Your task to perform on an android device: turn on location history Image 0: 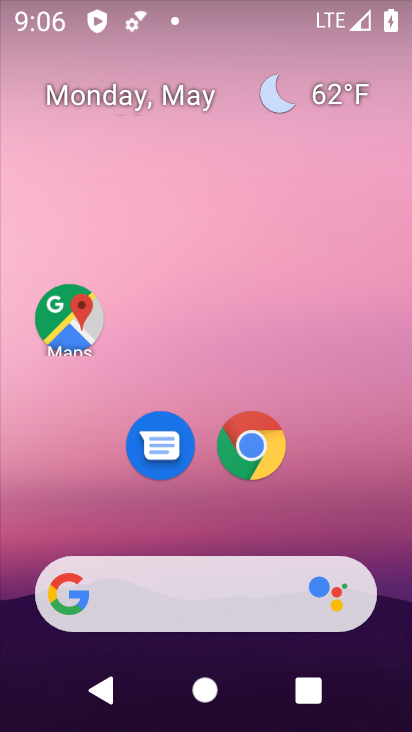
Step 0: drag from (397, 623) to (284, 135)
Your task to perform on an android device: turn on location history Image 1: 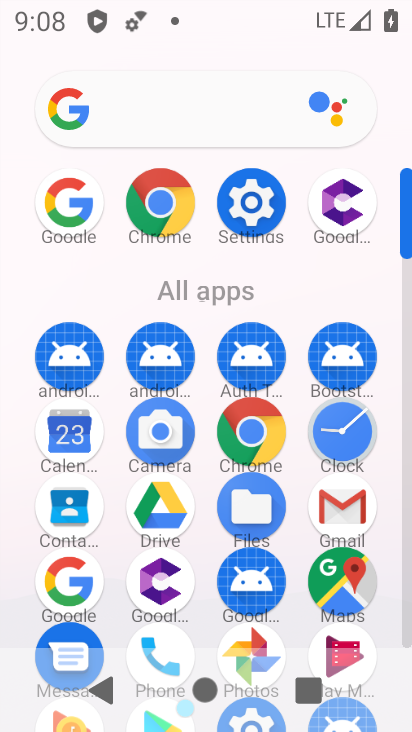
Step 1: click (265, 220)
Your task to perform on an android device: turn on location history Image 2: 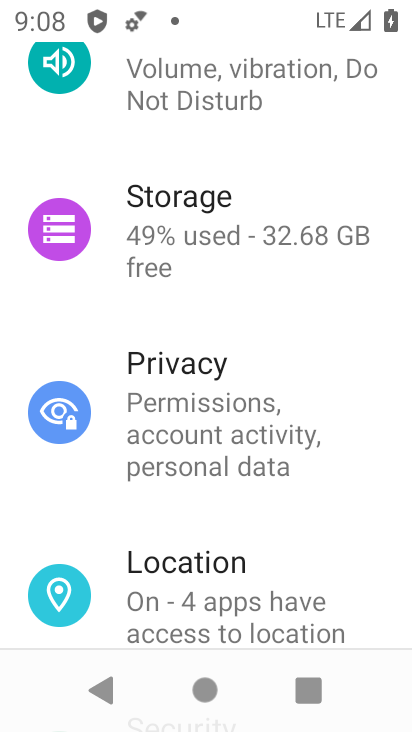
Step 2: click (212, 585)
Your task to perform on an android device: turn on location history Image 3: 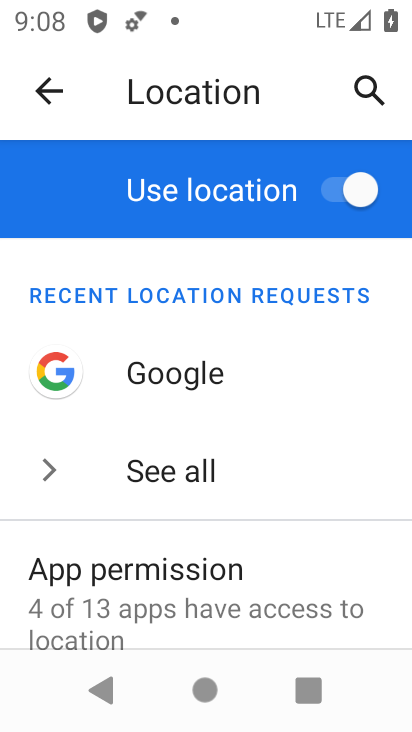
Step 3: drag from (184, 565) to (237, 72)
Your task to perform on an android device: turn on location history Image 4: 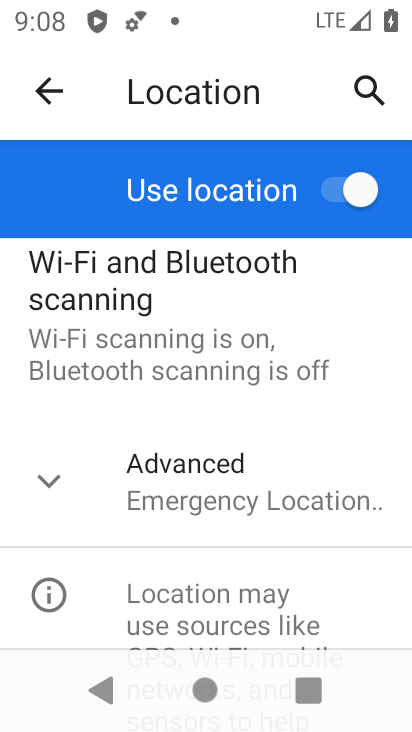
Step 4: click (157, 483)
Your task to perform on an android device: turn on location history Image 5: 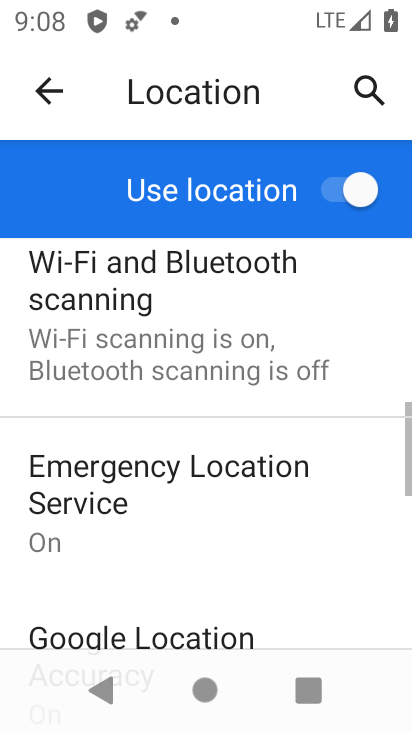
Step 5: drag from (154, 537) to (223, 135)
Your task to perform on an android device: turn on location history Image 6: 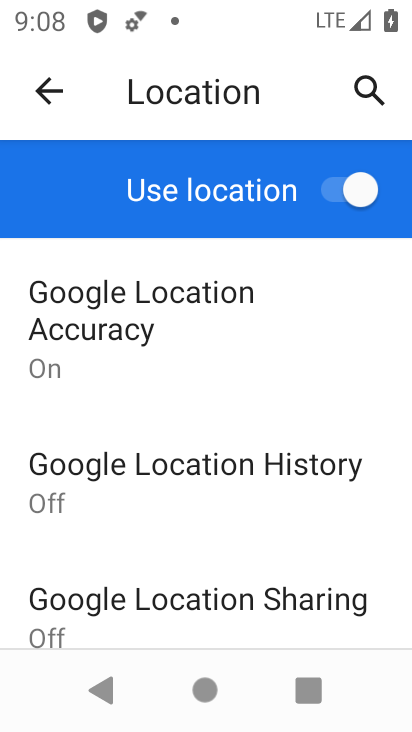
Step 6: click (290, 460)
Your task to perform on an android device: turn on location history Image 7: 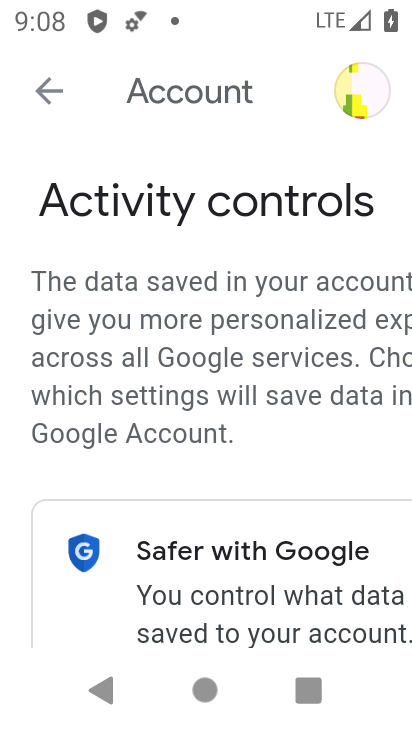
Step 7: task complete